Your task to perform on an android device: allow notifications from all sites in the chrome app Image 0: 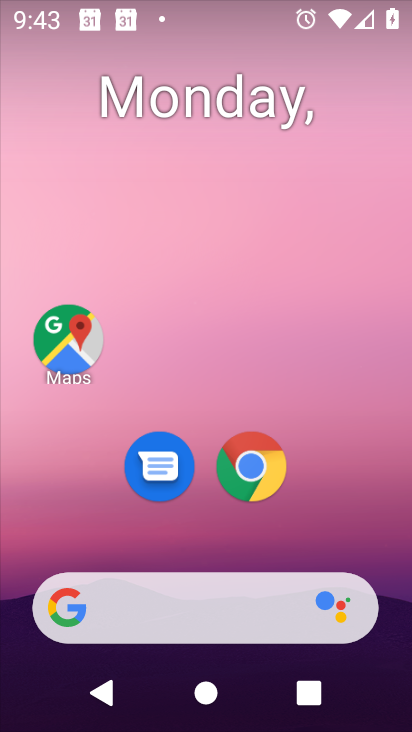
Step 0: drag from (360, 686) to (252, 190)
Your task to perform on an android device: allow notifications from all sites in the chrome app Image 1: 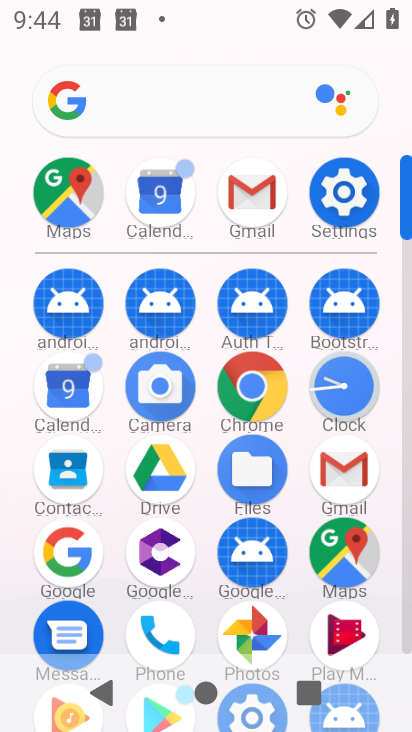
Step 1: click (251, 384)
Your task to perform on an android device: allow notifications from all sites in the chrome app Image 2: 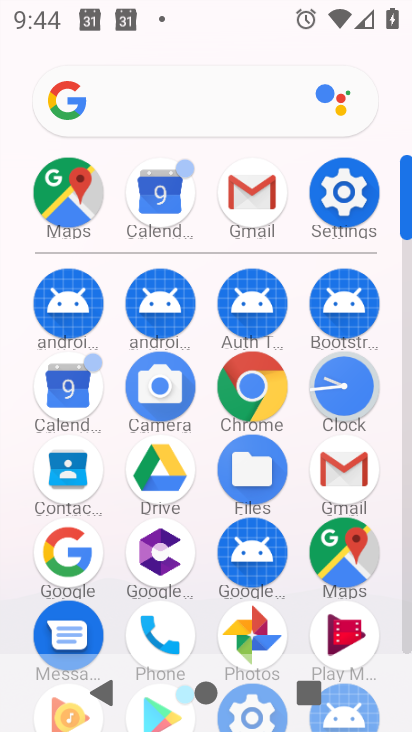
Step 2: click (254, 386)
Your task to perform on an android device: allow notifications from all sites in the chrome app Image 3: 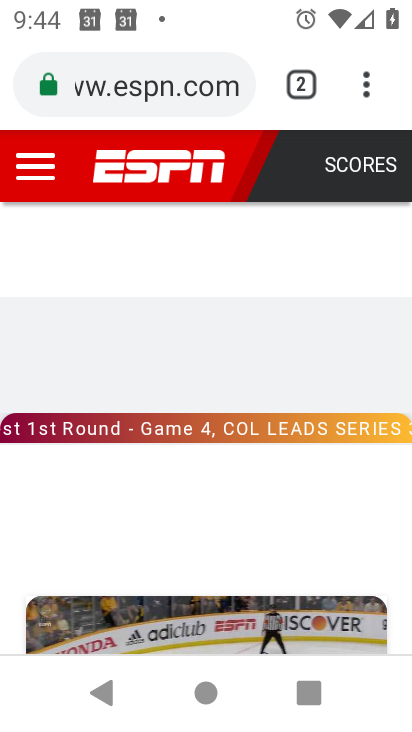
Step 3: drag from (358, 82) to (109, 527)
Your task to perform on an android device: allow notifications from all sites in the chrome app Image 4: 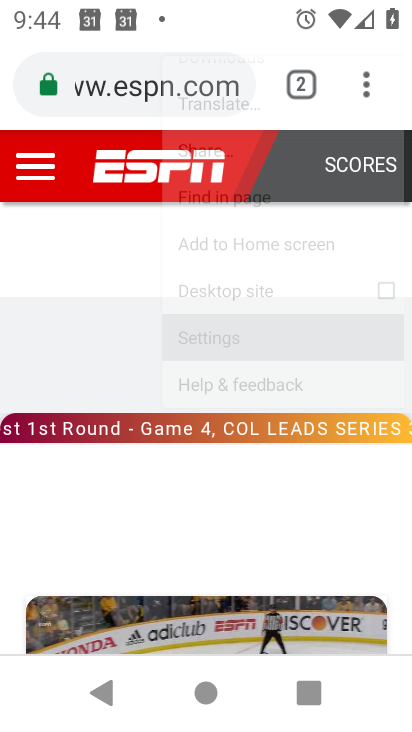
Step 4: click (113, 524)
Your task to perform on an android device: allow notifications from all sites in the chrome app Image 5: 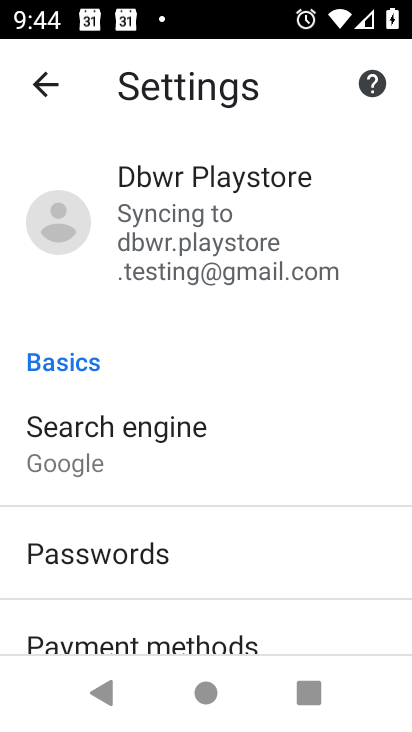
Step 5: drag from (157, 429) to (171, 178)
Your task to perform on an android device: allow notifications from all sites in the chrome app Image 6: 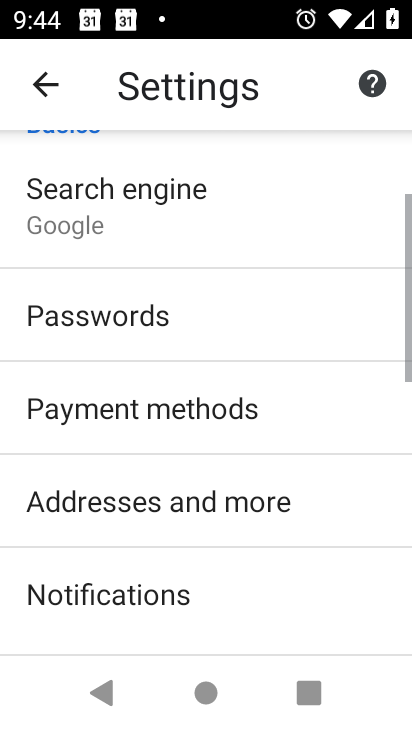
Step 6: drag from (215, 425) to (239, 33)
Your task to perform on an android device: allow notifications from all sites in the chrome app Image 7: 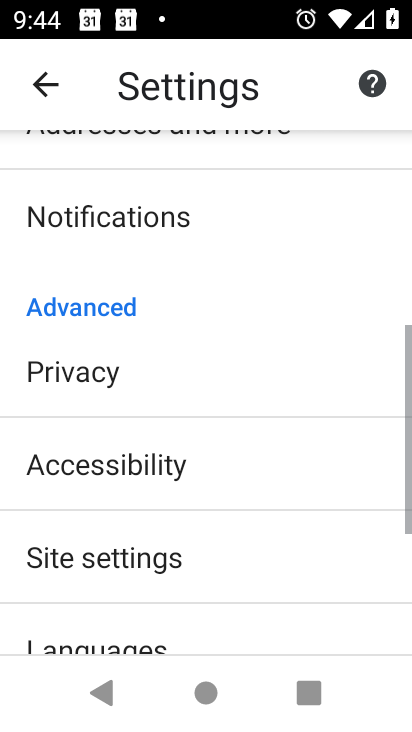
Step 7: drag from (172, 407) to (196, 10)
Your task to perform on an android device: allow notifications from all sites in the chrome app Image 8: 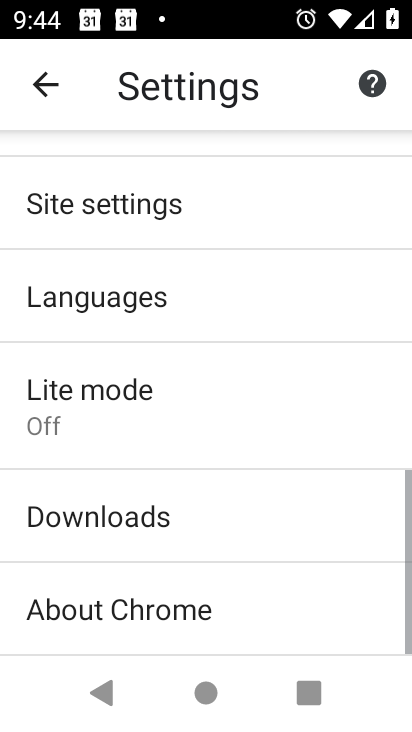
Step 8: drag from (190, 399) to (201, 193)
Your task to perform on an android device: allow notifications from all sites in the chrome app Image 9: 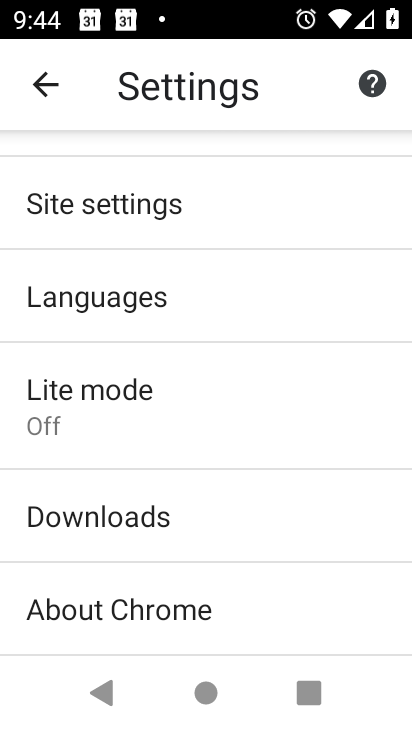
Step 9: click (81, 204)
Your task to perform on an android device: allow notifications from all sites in the chrome app Image 10: 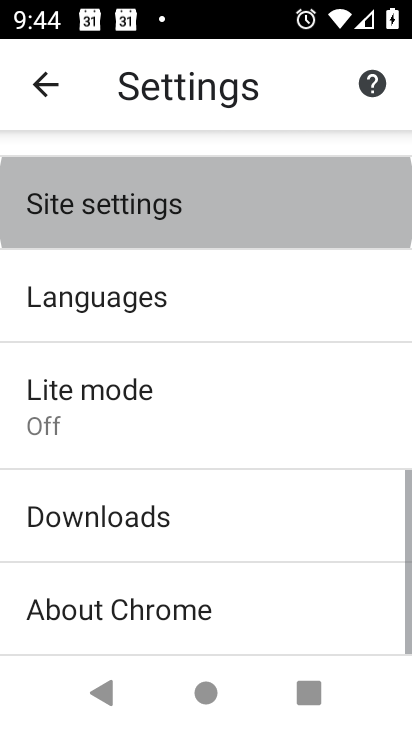
Step 10: click (81, 204)
Your task to perform on an android device: allow notifications from all sites in the chrome app Image 11: 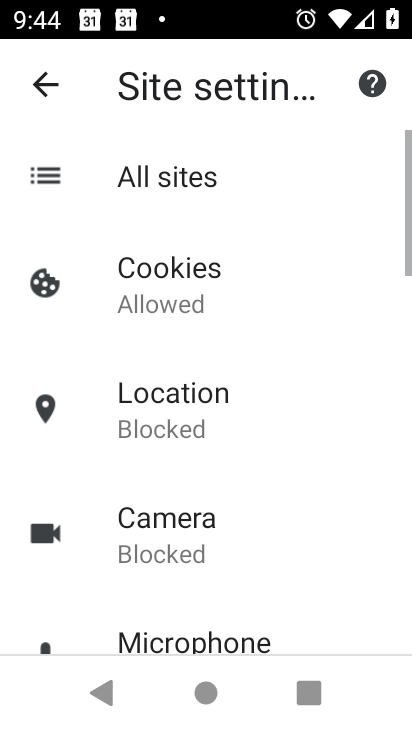
Step 11: click (92, 206)
Your task to perform on an android device: allow notifications from all sites in the chrome app Image 12: 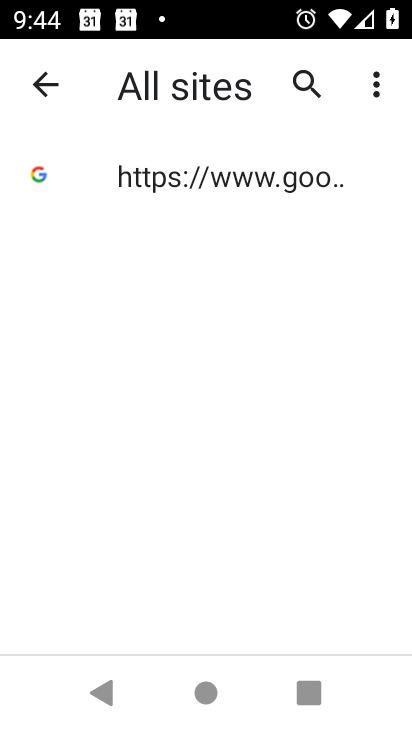
Step 12: click (45, 84)
Your task to perform on an android device: allow notifications from all sites in the chrome app Image 13: 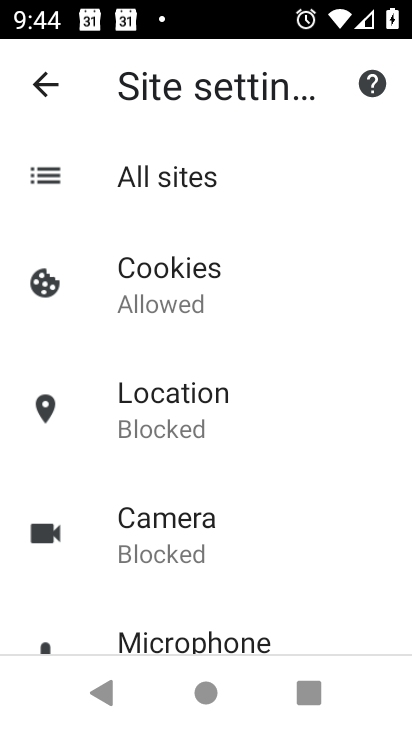
Step 13: click (163, 191)
Your task to perform on an android device: allow notifications from all sites in the chrome app Image 14: 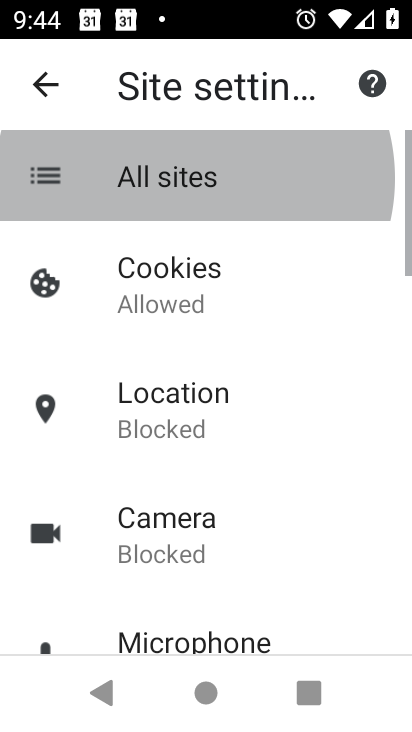
Step 14: click (166, 185)
Your task to perform on an android device: allow notifications from all sites in the chrome app Image 15: 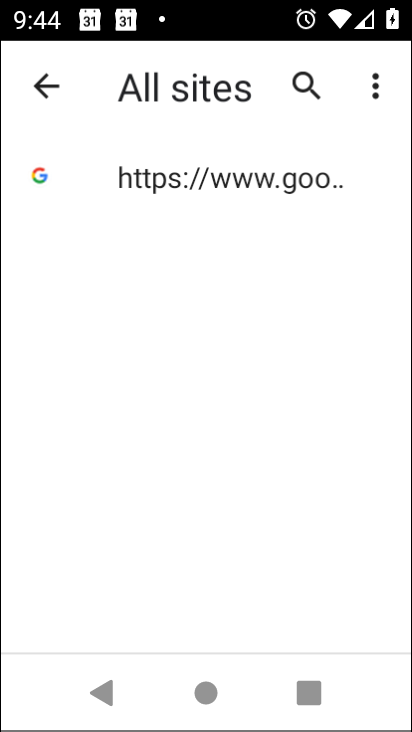
Step 15: click (166, 184)
Your task to perform on an android device: allow notifications from all sites in the chrome app Image 16: 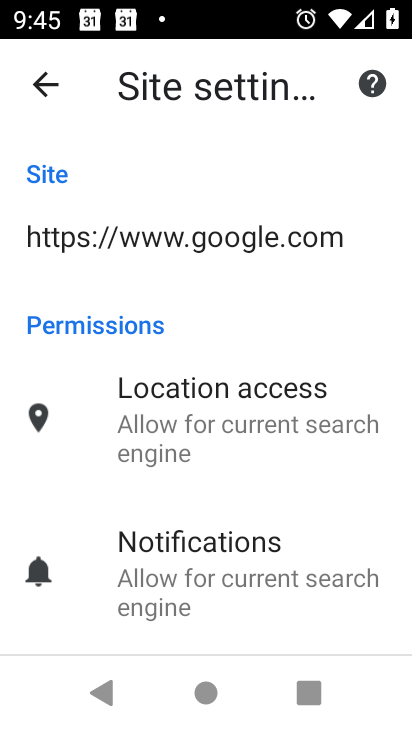
Step 16: drag from (179, 507) to (184, 281)
Your task to perform on an android device: allow notifications from all sites in the chrome app Image 17: 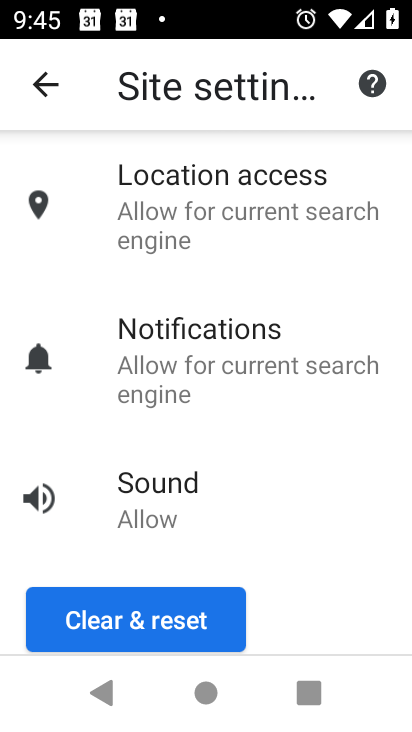
Step 17: click (191, 364)
Your task to perform on an android device: allow notifications from all sites in the chrome app Image 18: 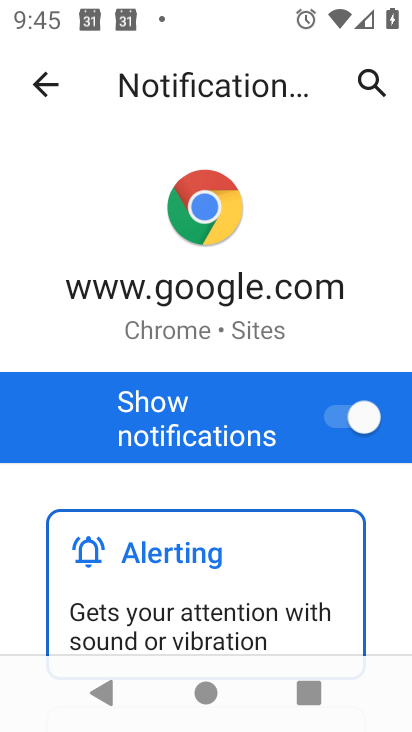
Step 18: task complete